Your task to perform on an android device: Open CNN.com Image 0: 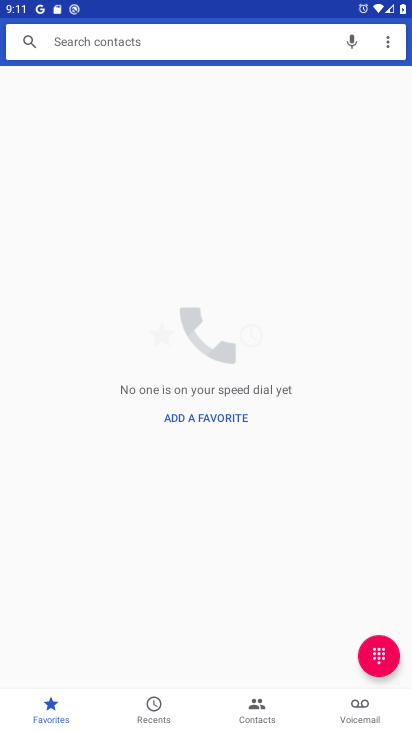
Step 0: press home button
Your task to perform on an android device: Open CNN.com Image 1: 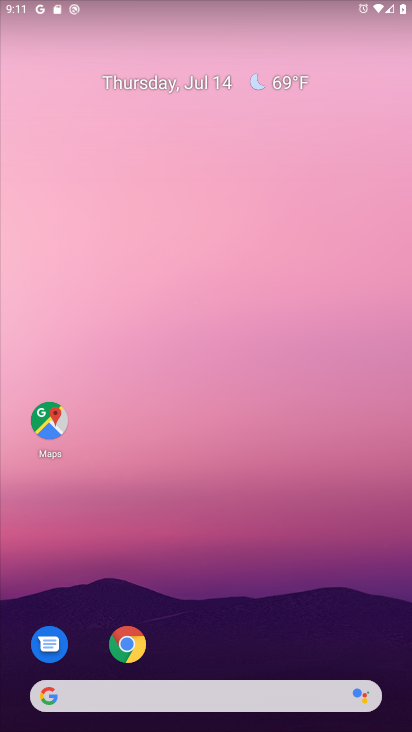
Step 1: click (160, 710)
Your task to perform on an android device: Open CNN.com Image 2: 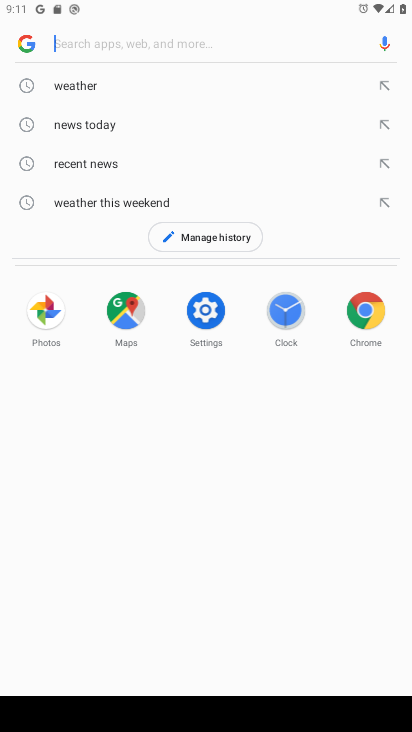
Step 2: type "cnn.com"
Your task to perform on an android device: Open CNN.com Image 3: 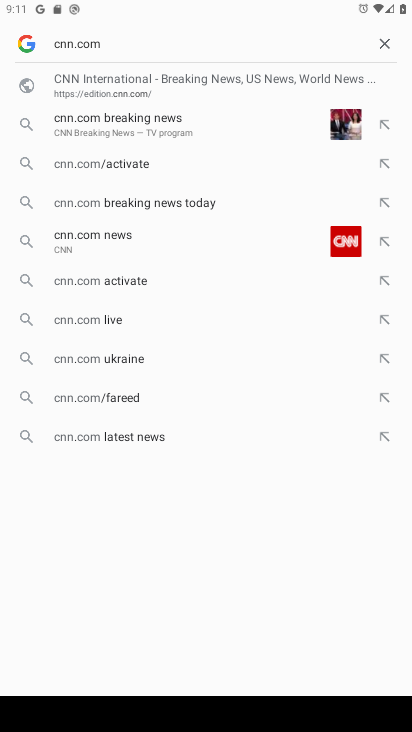
Step 3: click (209, 93)
Your task to perform on an android device: Open CNN.com Image 4: 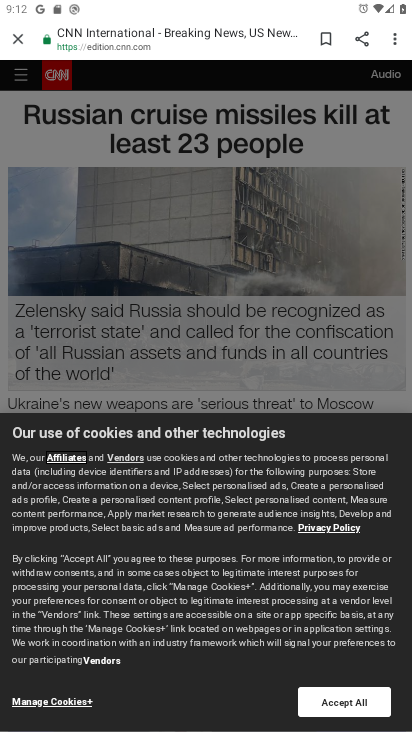
Step 4: task complete